Your task to perform on an android device: turn off location history Image 0: 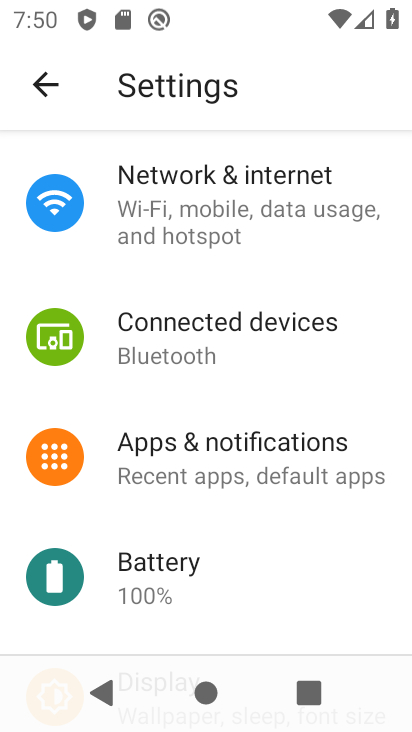
Step 0: drag from (228, 550) to (246, 13)
Your task to perform on an android device: turn off location history Image 1: 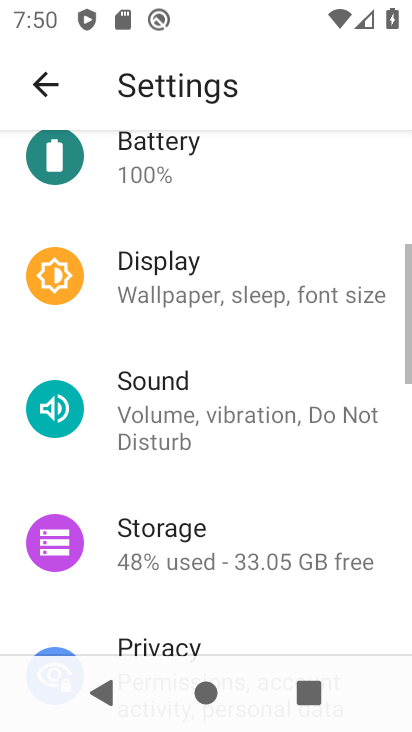
Step 1: drag from (236, 492) to (266, 54)
Your task to perform on an android device: turn off location history Image 2: 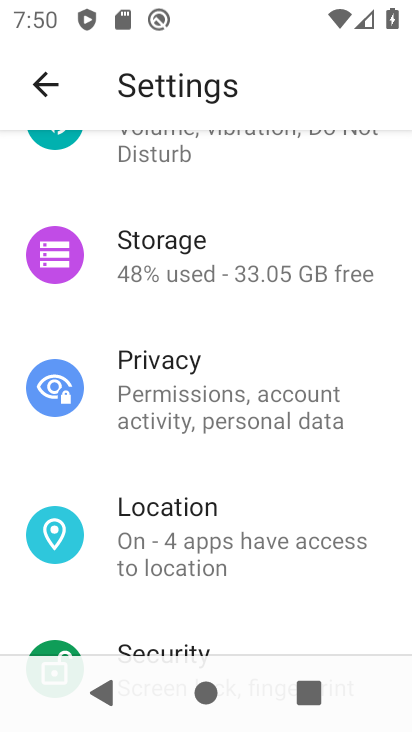
Step 2: click (189, 507)
Your task to perform on an android device: turn off location history Image 3: 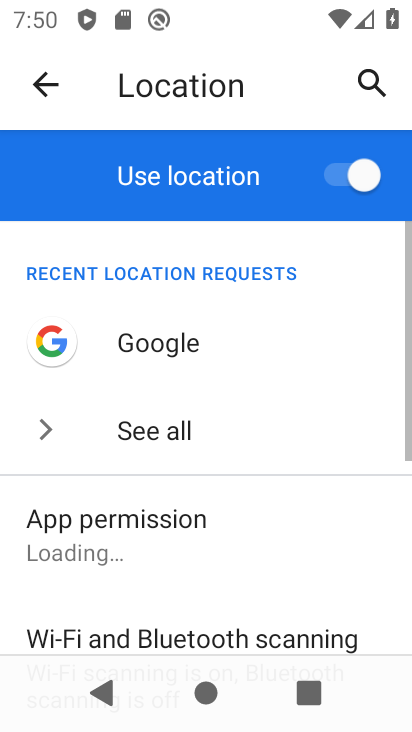
Step 3: drag from (170, 575) to (158, 280)
Your task to perform on an android device: turn off location history Image 4: 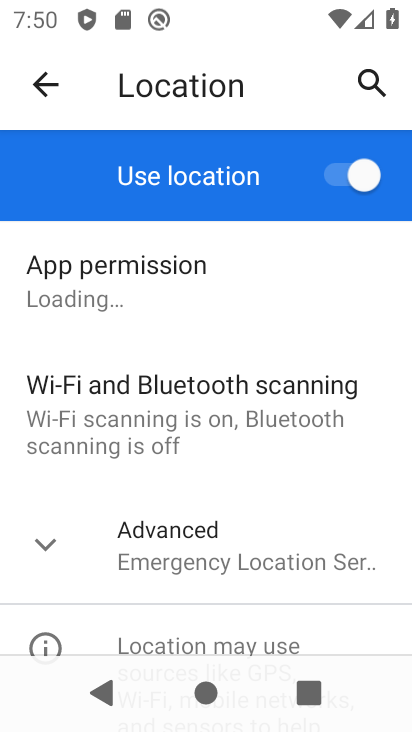
Step 4: click (184, 538)
Your task to perform on an android device: turn off location history Image 5: 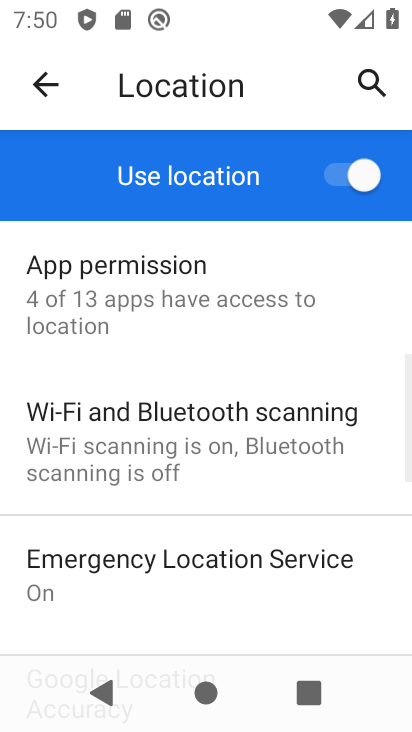
Step 5: drag from (233, 551) to (239, 193)
Your task to perform on an android device: turn off location history Image 6: 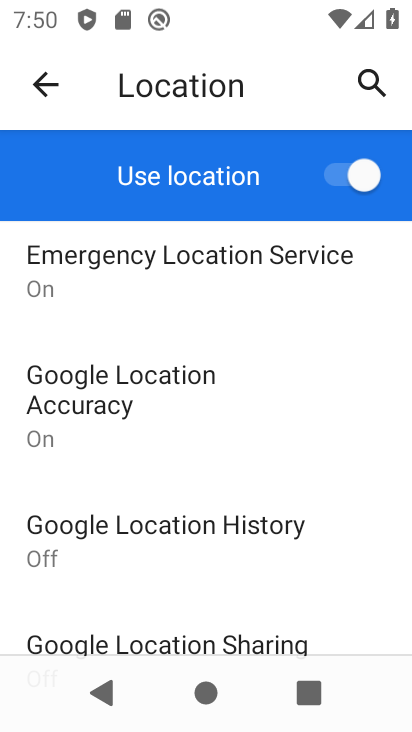
Step 6: click (168, 525)
Your task to perform on an android device: turn off location history Image 7: 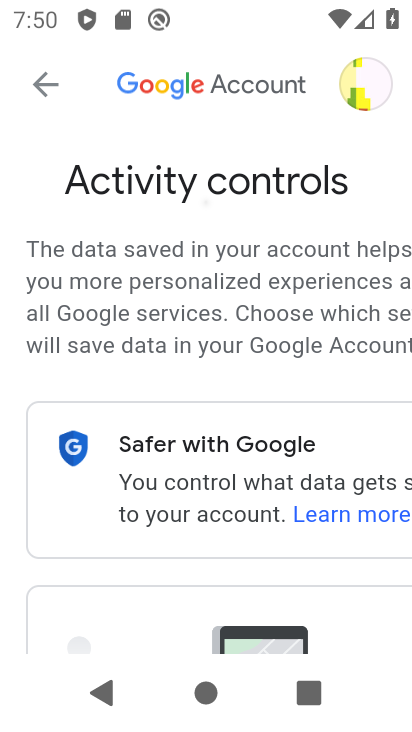
Step 7: drag from (239, 575) to (250, 185)
Your task to perform on an android device: turn off location history Image 8: 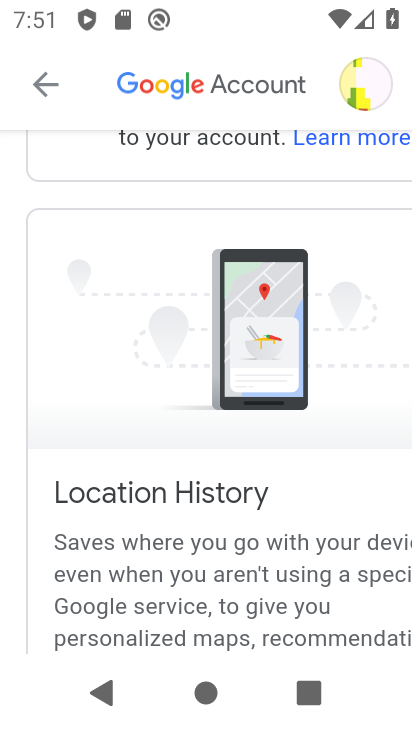
Step 8: drag from (149, 494) to (94, 0)
Your task to perform on an android device: turn off location history Image 9: 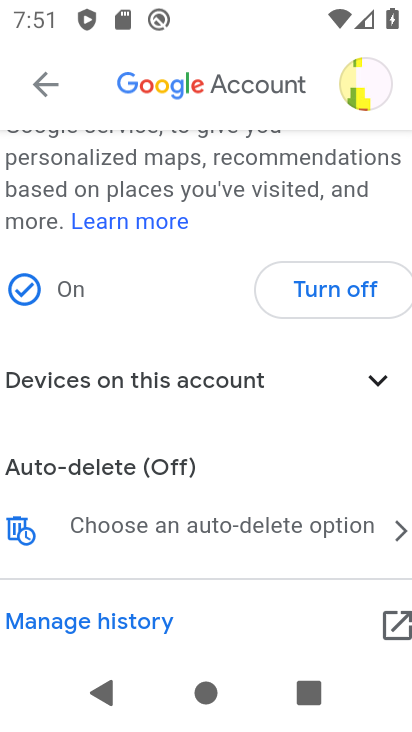
Step 9: click (319, 274)
Your task to perform on an android device: turn off location history Image 10: 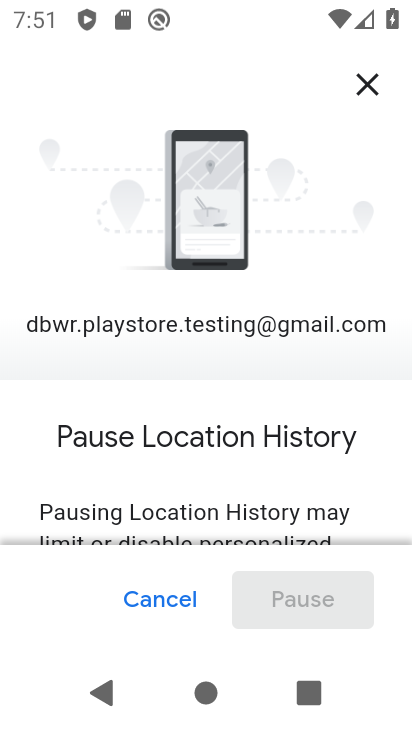
Step 10: drag from (312, 507) to (271, 7)
Your task to perform on an android device: turn off location history Image 11: 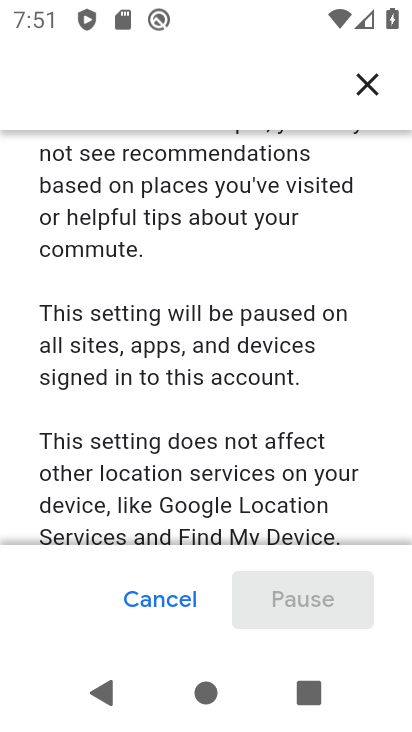
Step 11: drag from (308, 510) to (105, 8)
Your task to perform on an android device: turn off location history Image 12: 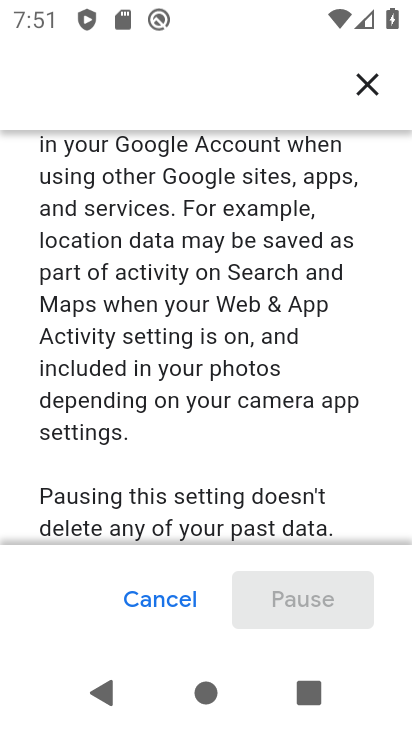
Step 12: drag from (192, 375) to (153, 0)
Your task to perform on an android device: turn off location history Image 13: 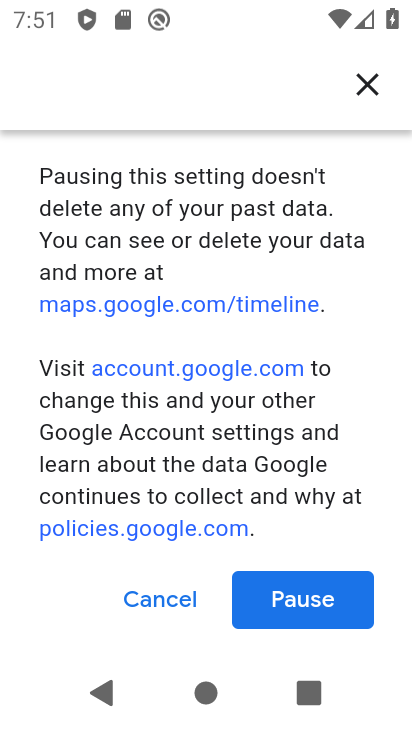
Step 13: click (330, 616)
Your task to perform on an android device: turn off location history Image 14: 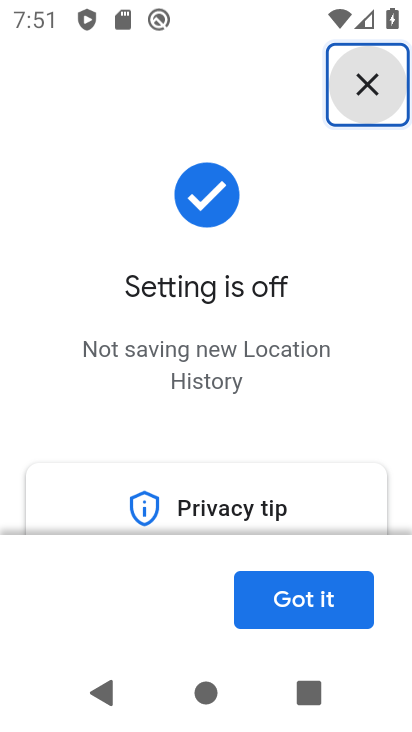
Step 14: task complete